Your task to perform on an android device: refresh tabs in the chrome app Image 0: 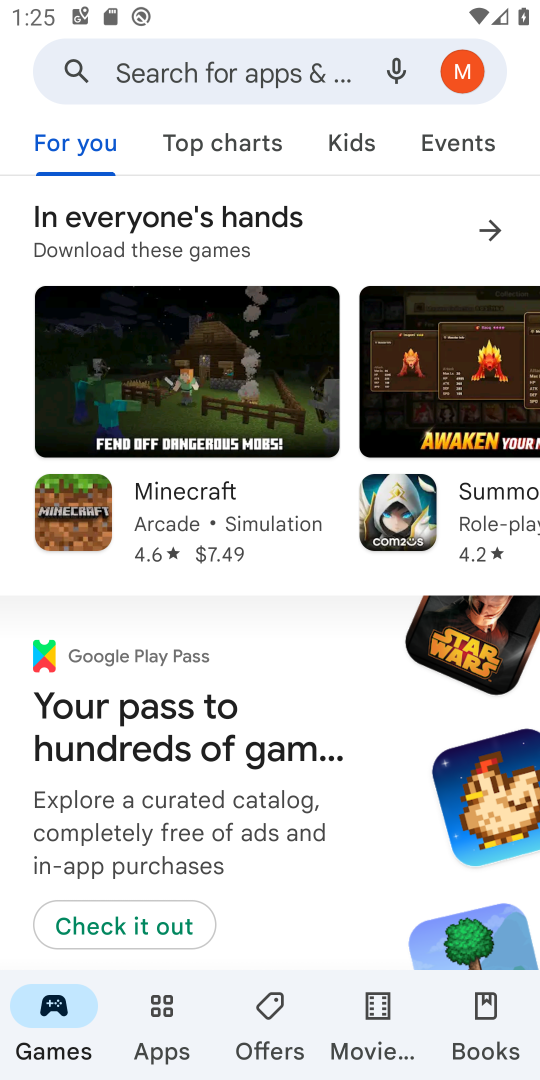
Step 0: press home button
Your task to perform on an android device: refresh tabs in the chrome app Image 1: 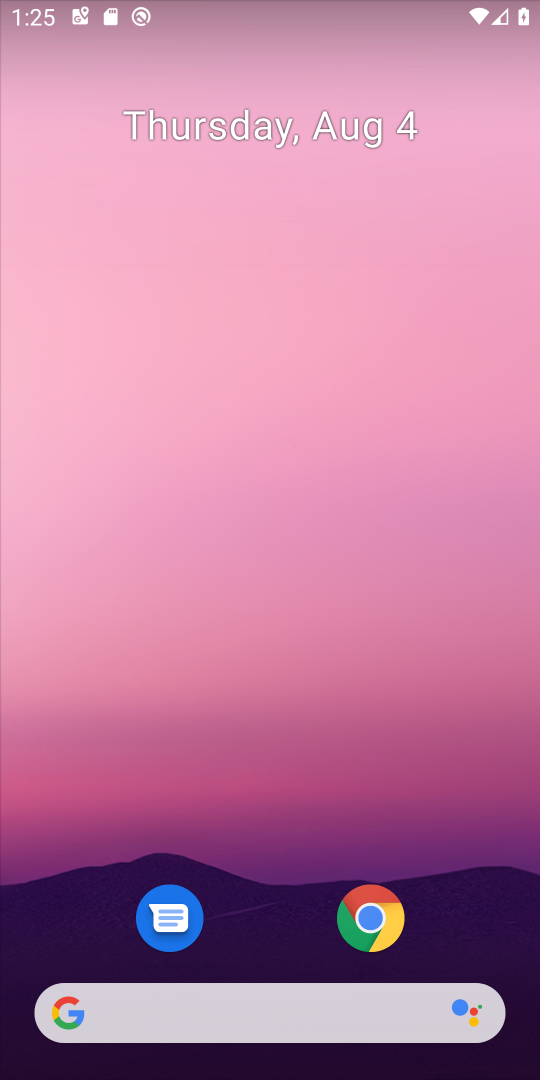
Step 1: click (370, 916)
Your task to perform on an android device: refresh tabs in the chrome app Image 2: 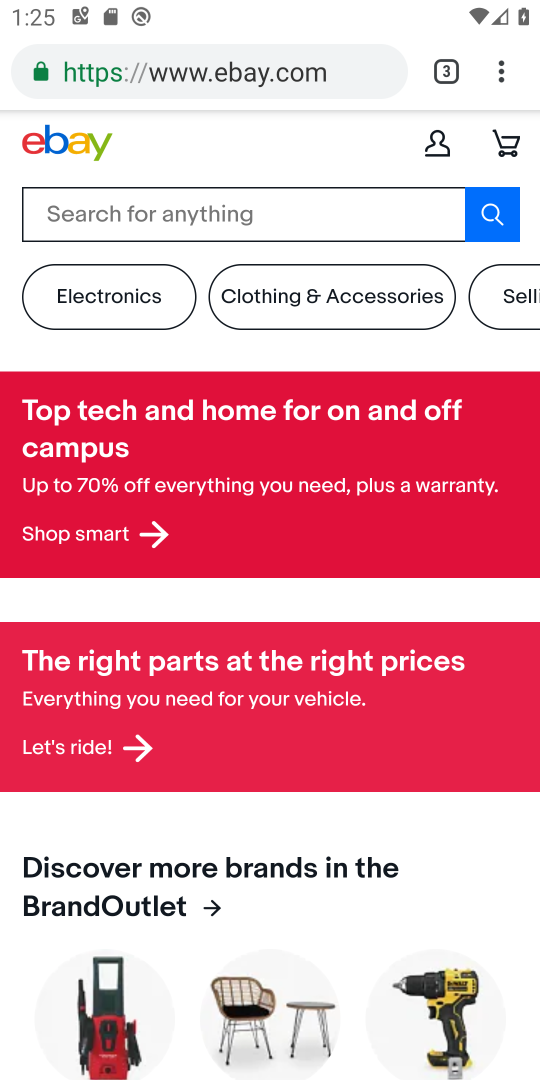
Step 2: click (493, 68)
Your task to perform on an android device: refresh tabs in the chrome app Image 3: 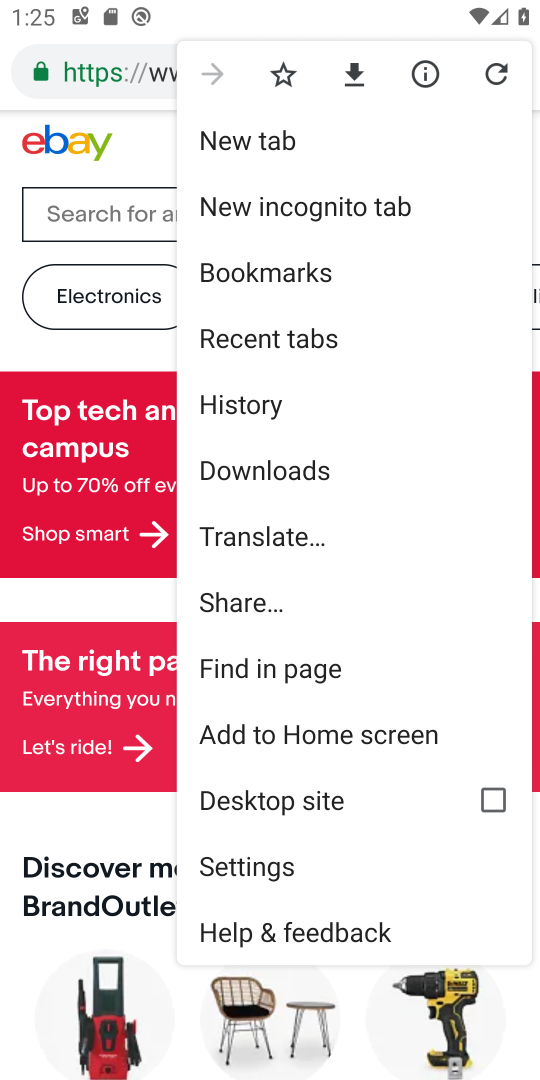
Step 3: click (485, 76)
Your task to perform on an android device: refresh tabs in the chrome app Image 4: 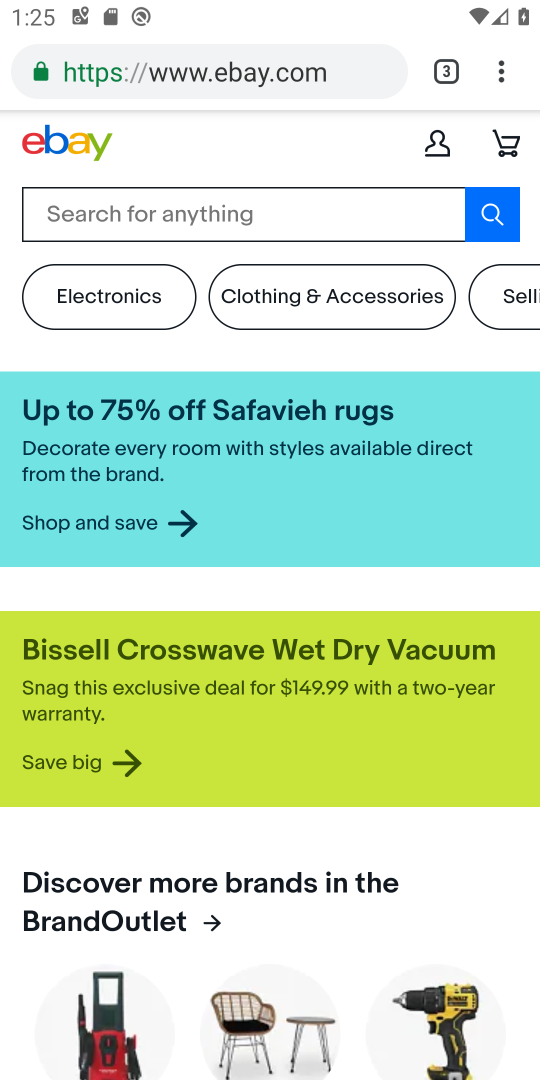
Step 4: task complete